Your task to perform on an android device: Empty the shopping cart on newegg. Search for "acer nitro" on newegg, select the first entry, and add it to the cart. Image 0: 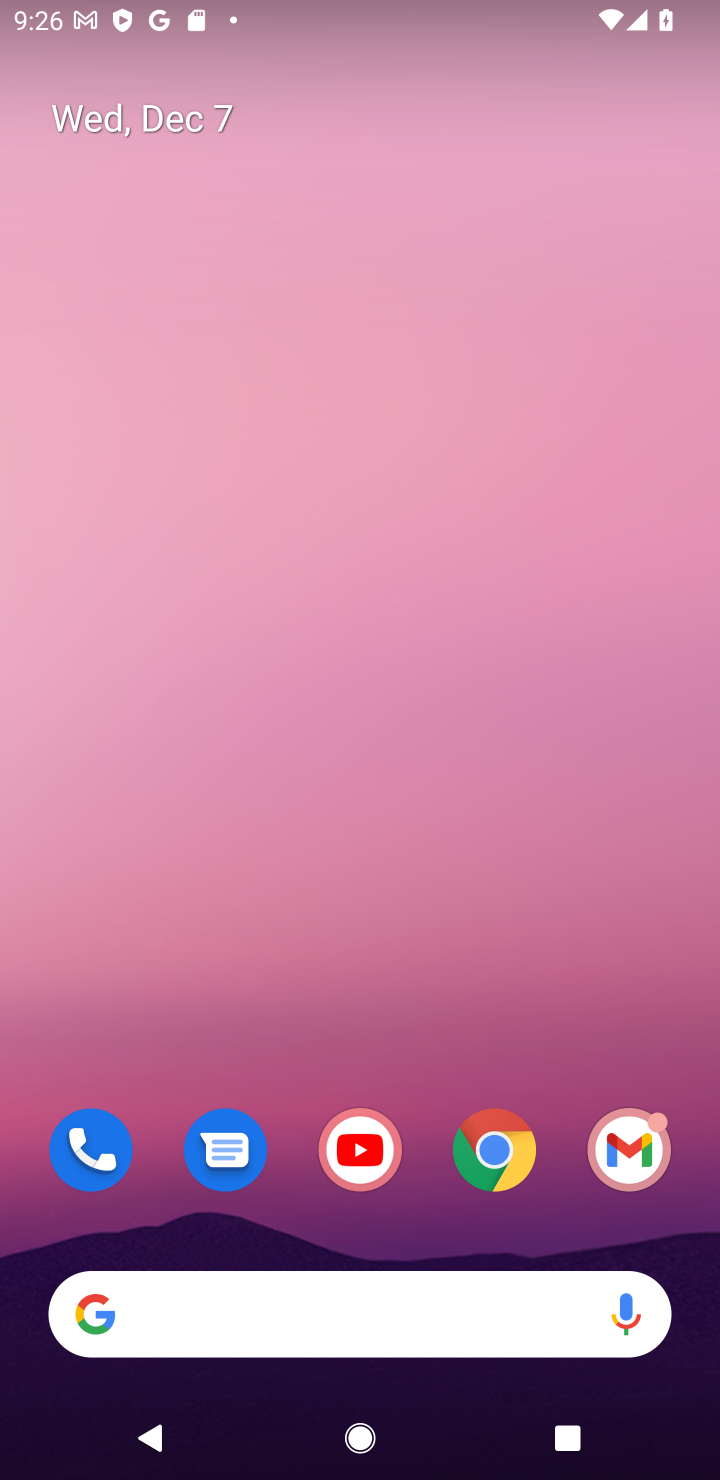
Step 0: click (494, 1149)
Your task to perform on an android device: Empty the shopping cart on newegg. Search for "acer nitro" on newegg, select the first entry, and add it to the cart. Image 1: 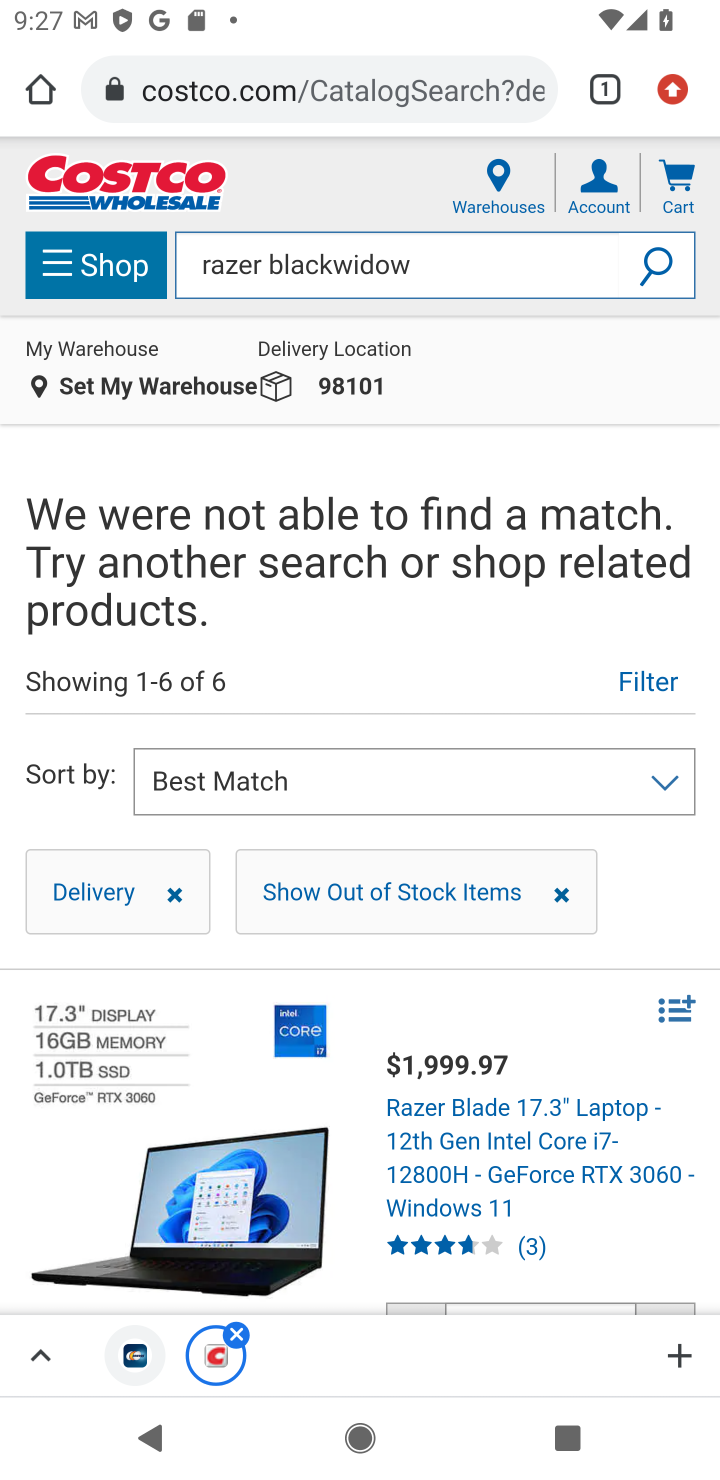
Step 1: click (338, 89)
Your task to perform on an android device: Empty the shopping cart on newegg. Search for "acer nitro" on newegg, select the first entry, and add it to the cart. Image 2: 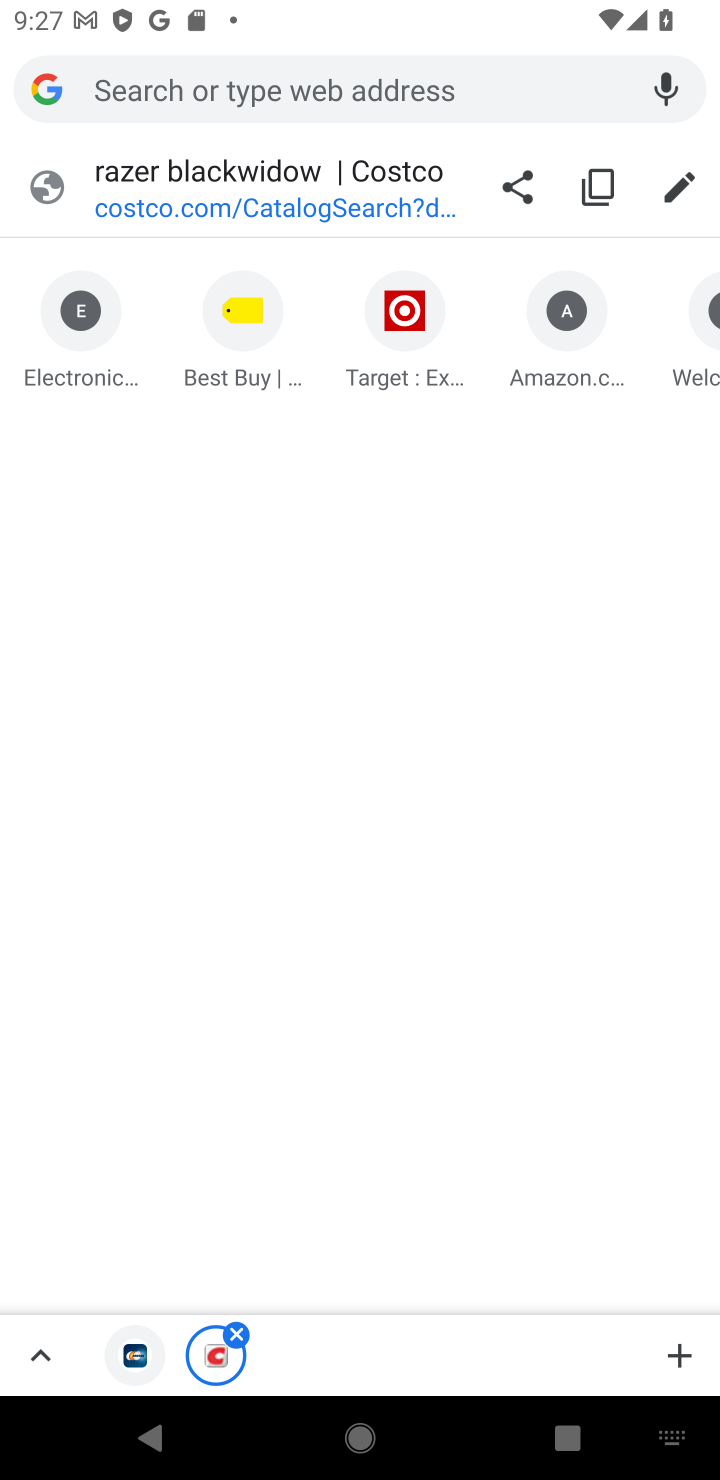
Step 2: press enter
Your task to perform on an android device: Empty the shopping cart on newegg. Search for "acer nitro" on newegg, select the first entry, and add it to the cart. Image 3: 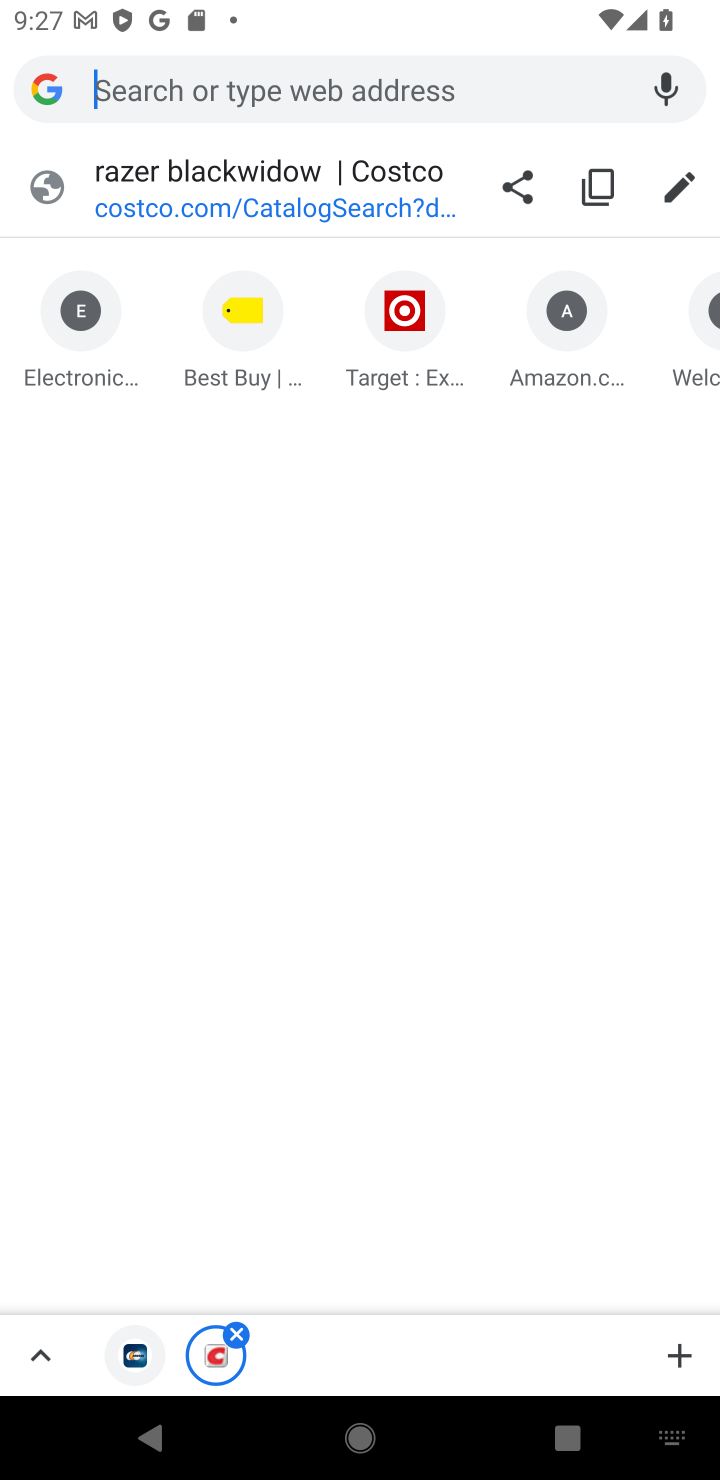
Step 3: type "newegg"
Your task to perform on an android device: Empty the shopping cart on newegg. Search for "acer nitro" on newegg, select the first entry, and add it to the cart. Image 4: 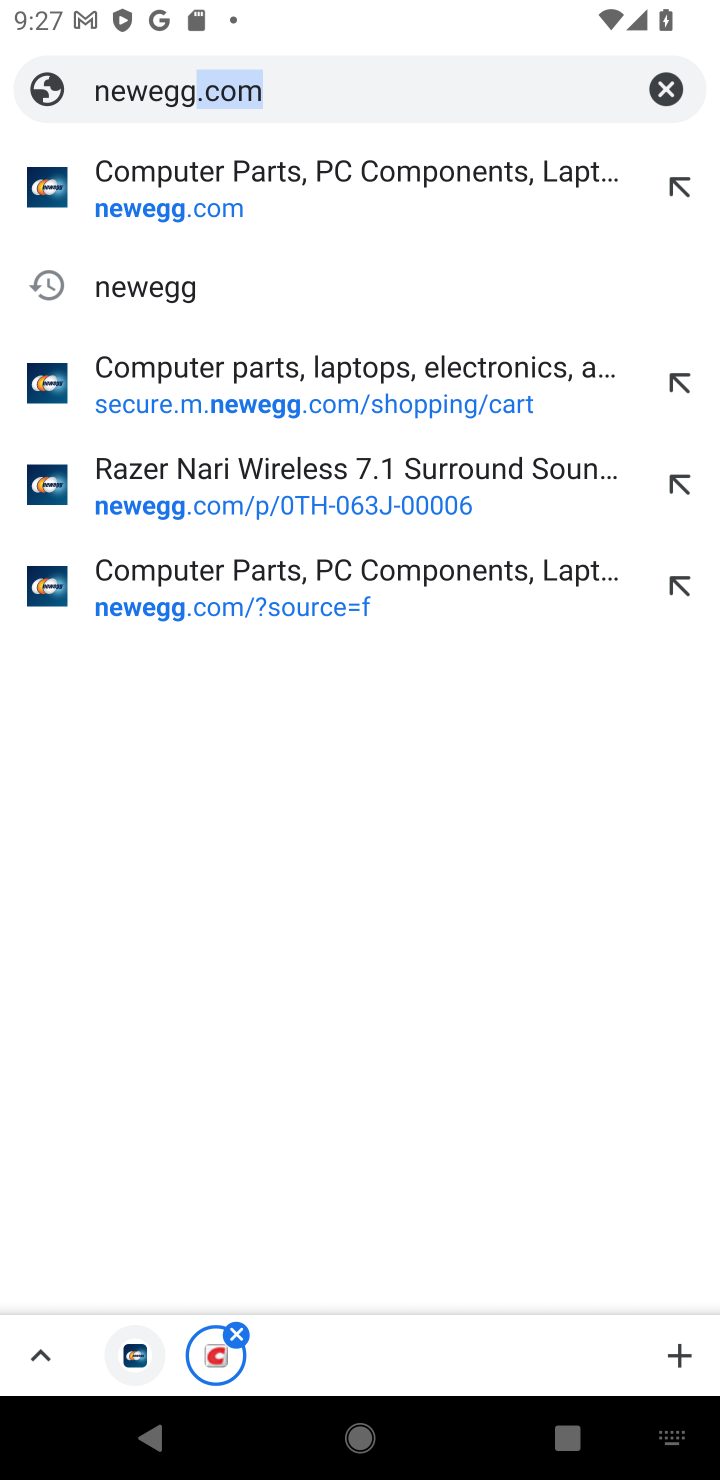
Step 4: click (412, 70)
Your task to perform on an android device: Empty the shopping cart on newegg. Search for "acer nitro" on newegg, select the first entry, and add it to the cart. Image 5: 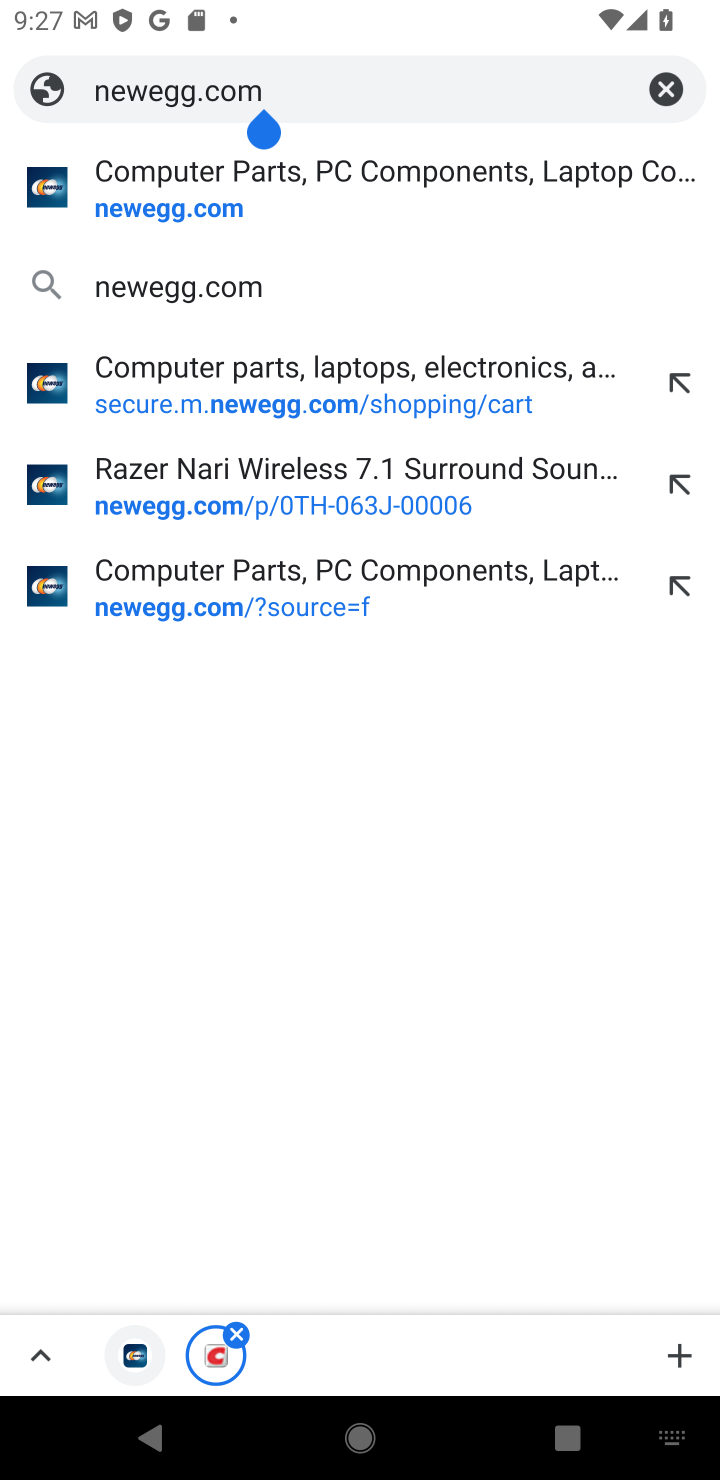
Step 5: click (214, 284)
Your task to perform on an android device: Empty the shopping cart on newegg. Search for "acer nitro" on newegg, select the first entry, and add it to the cart. Image 6: 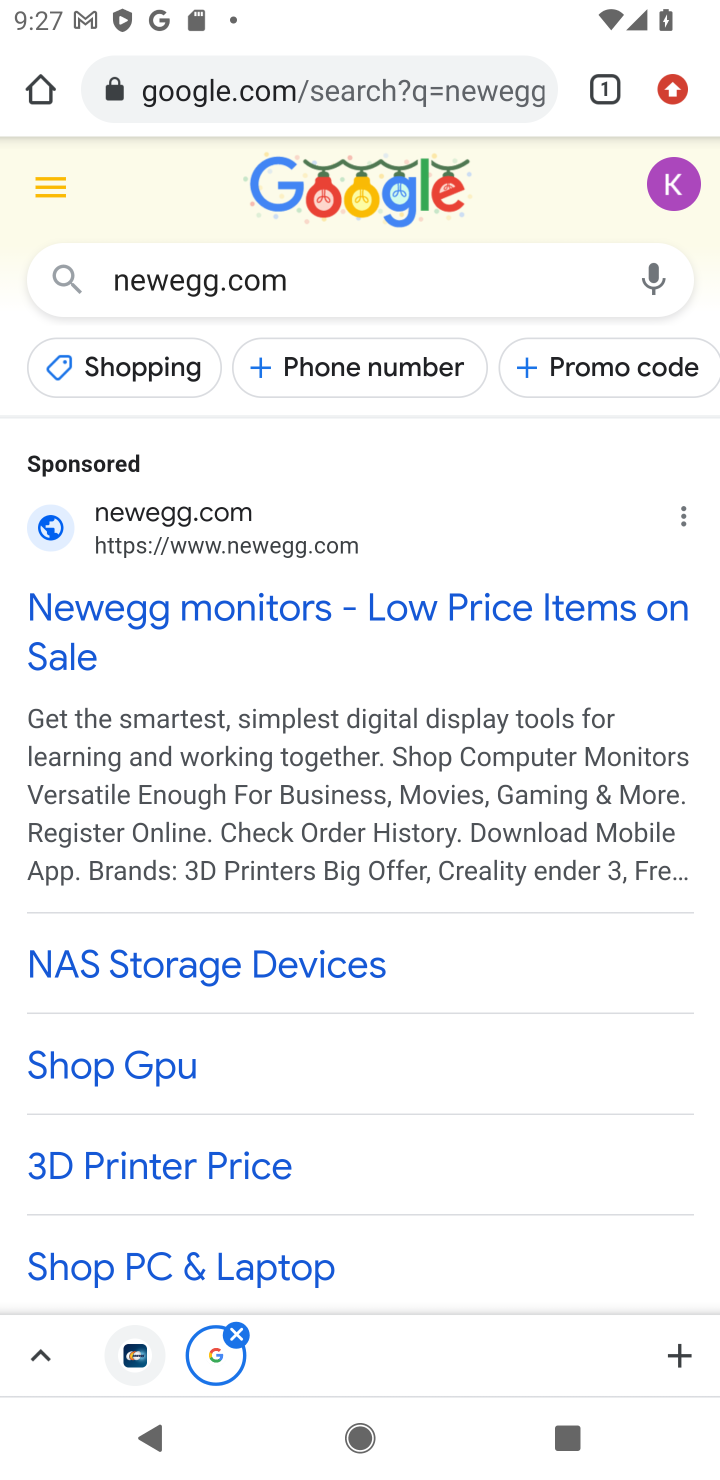
Step 6: click (258, 544)
Your task to perform on an android device: Empty the shopping cart on newegg. Search for "acer nitro" on newegg, select the first entry, and add it to the cart. Image 7: 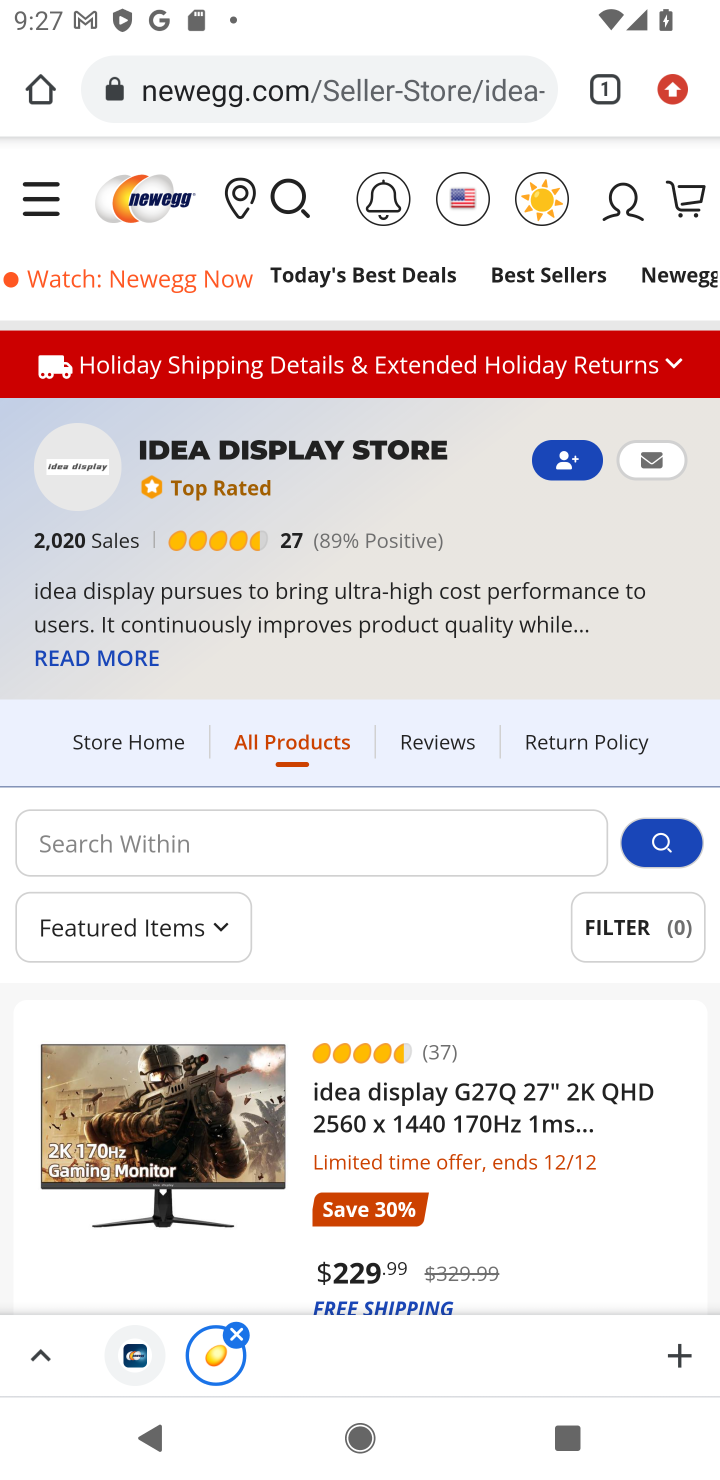
Step 7: click (294, 196)
Your task to perform on an android device: Empty the shopping cart on newegg. Search for "acer nitro" on newegg, select the first entry, and add it to the cart. Image 8: 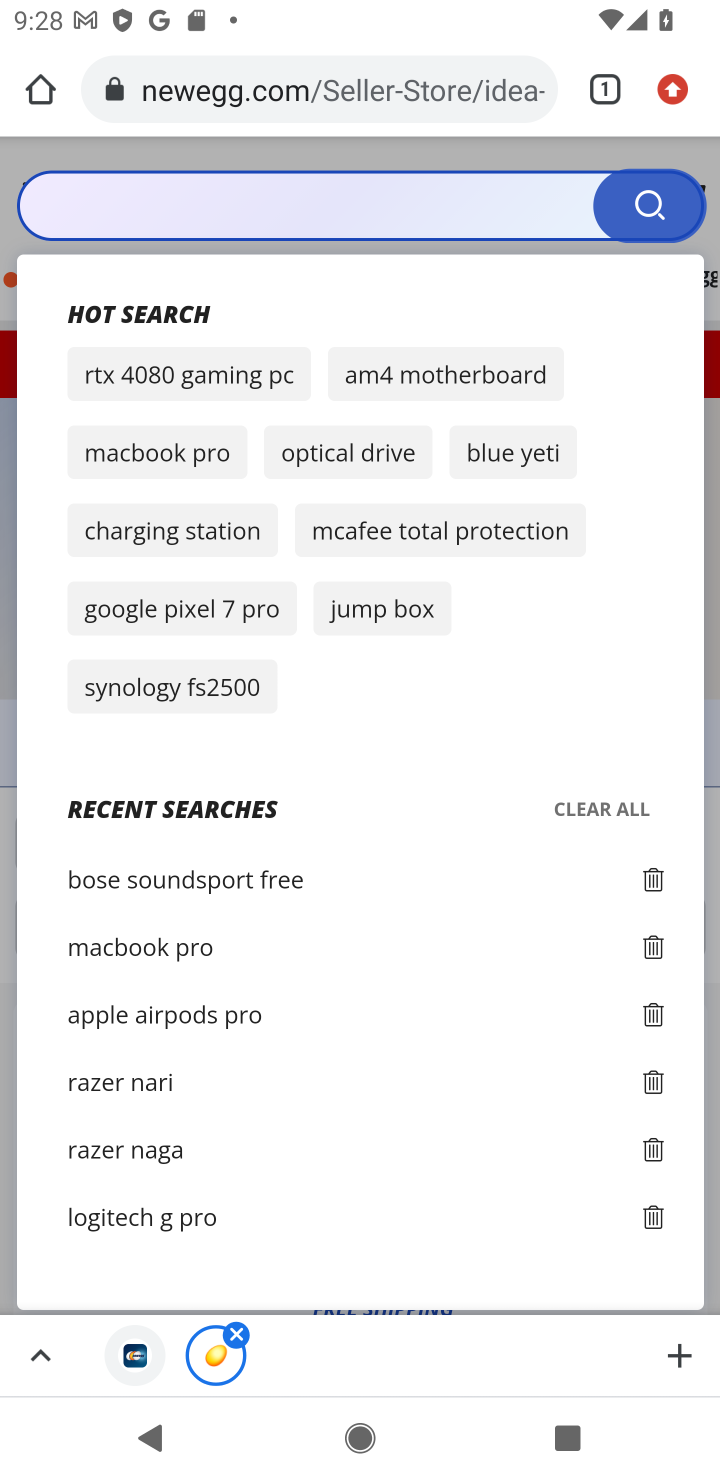
Step 8: press back button
Your task to perform on an android device: Empty the shopping cart on newegg. Search for "acer nitro" on newegg, select the first entry, and add it to the cart. Image 9: 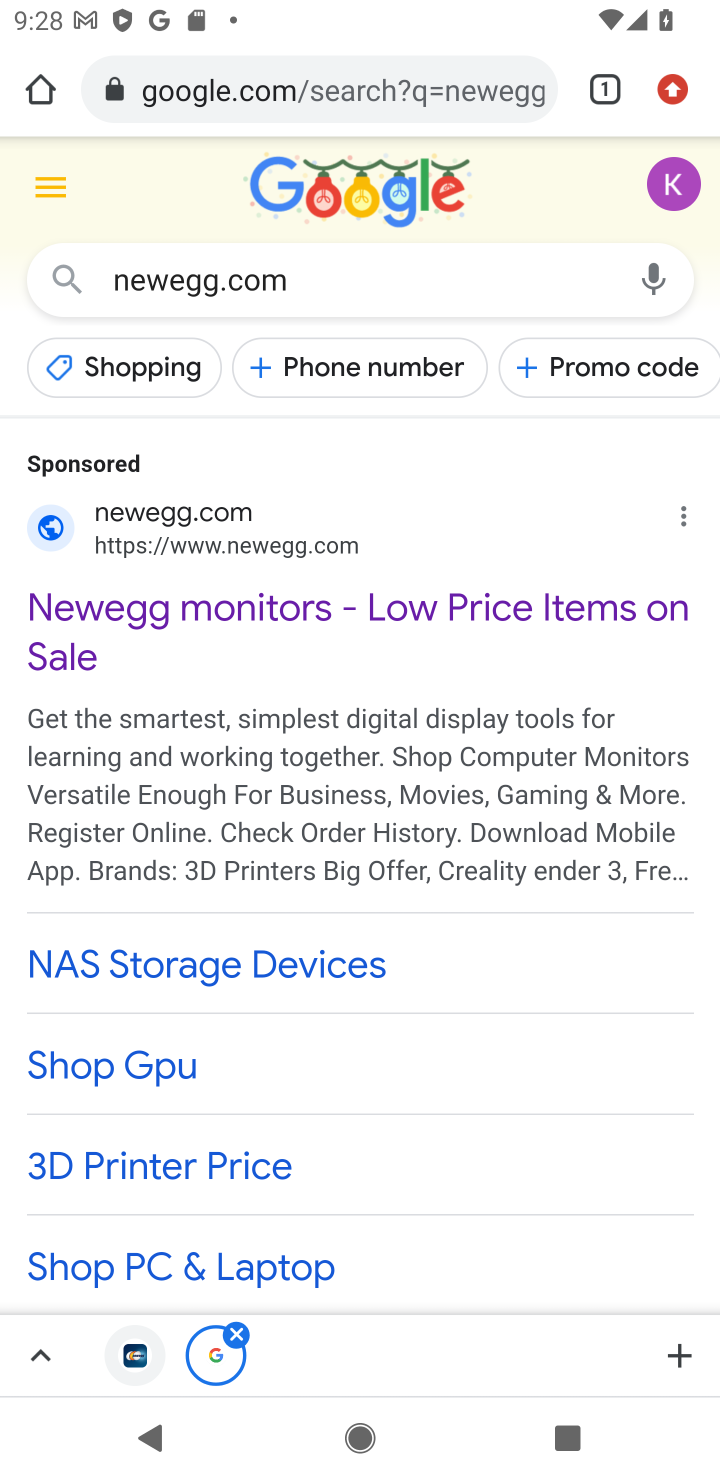
Step 9: drag from (447, 1006) to (405, 528)
Your task to perform on an android device: Empty the shopping cart on newegg. Search for "acer nitro" on newegg, select the first entry, and add it to the cart. Image 10: 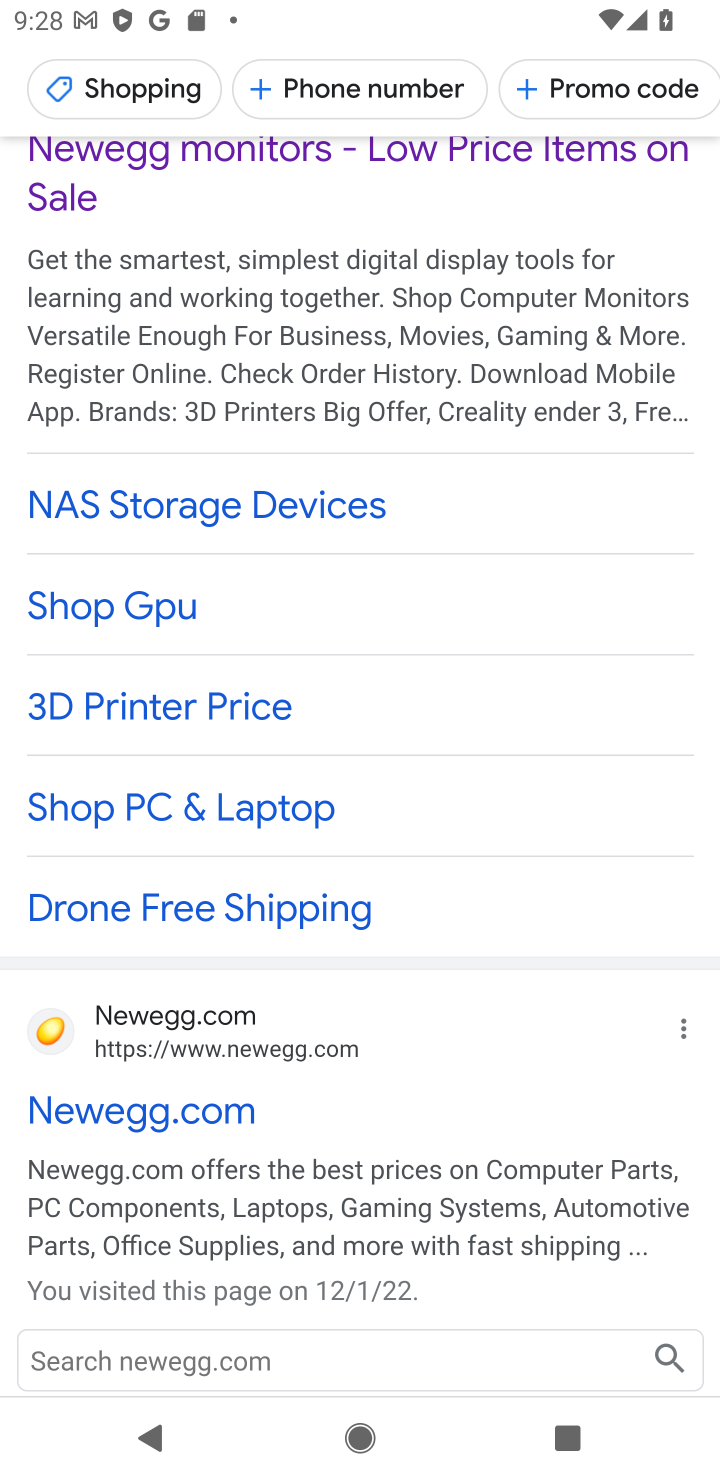
Step 10: click (240, 1041)
Your task to perform on an android device: Empty the shopping cart on newegg. Search for "acer nitro" on newegg, select the first entry, and add it to the cart. Image 11: 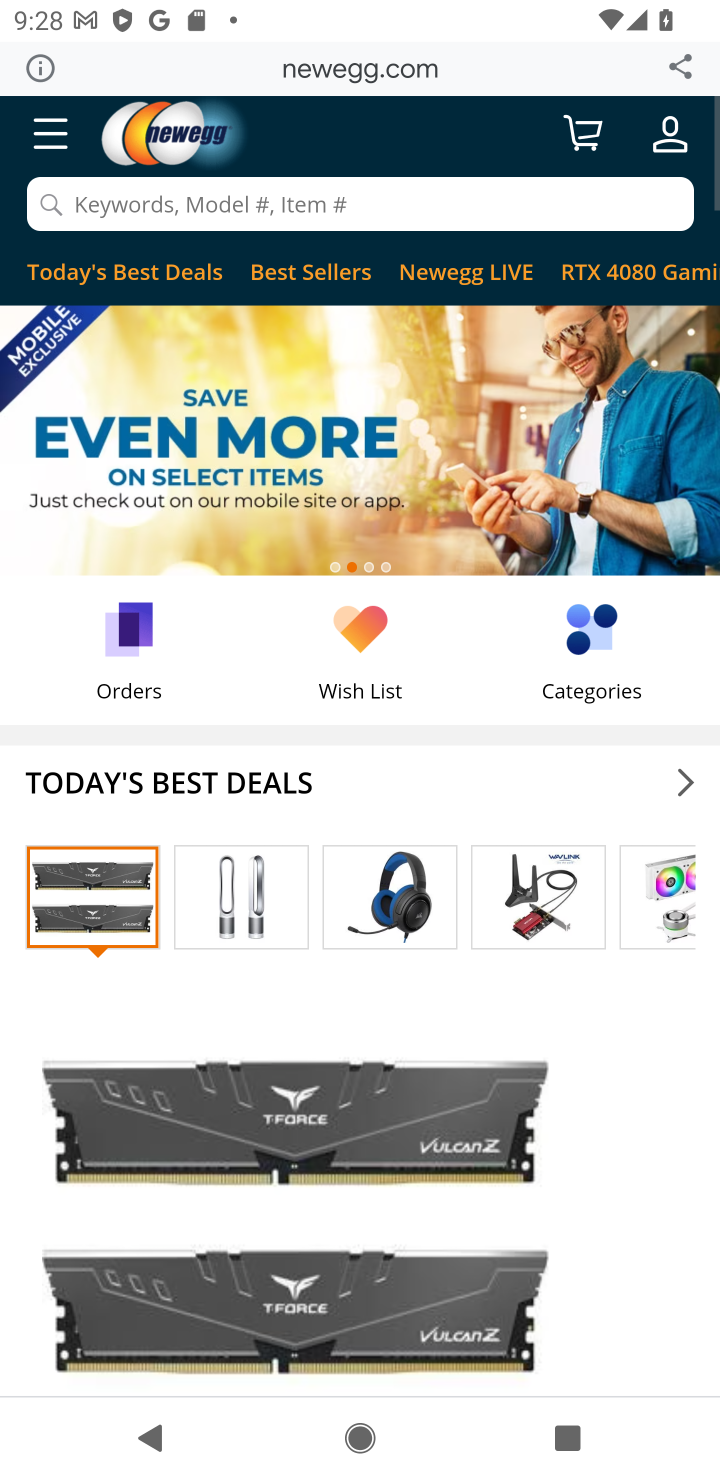
Step 11: click (585, 132)
Your task to perform on an android device: Empty the shopping cart on newegg. Search for "acer nitro" on newegg, select the first entry, and add it to the cart. Image 12: 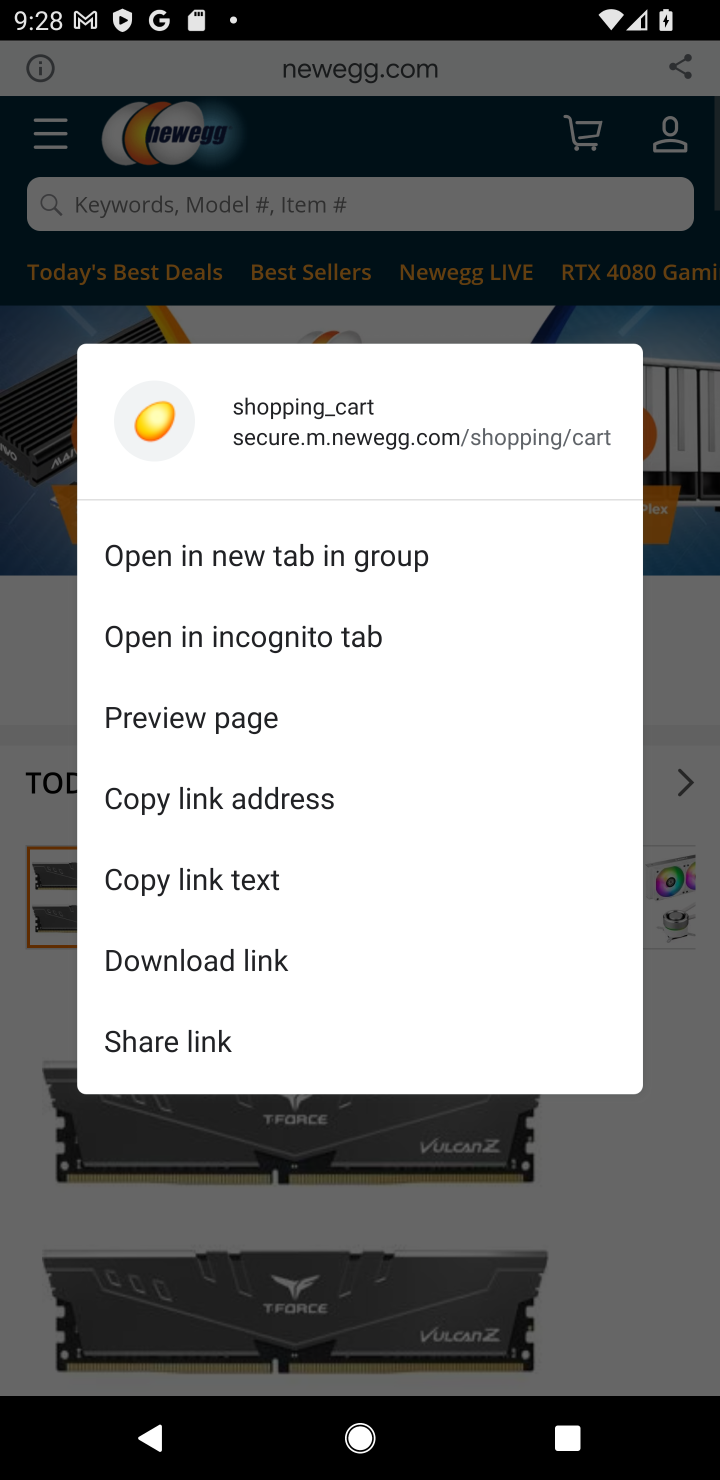
Step 12: click (531, 214)
Your task to perform on an android device: Empty the shopping cart on newegg. Search for "acer nitro" on newegg, select the first entry, and add it to the cart. Image 13: 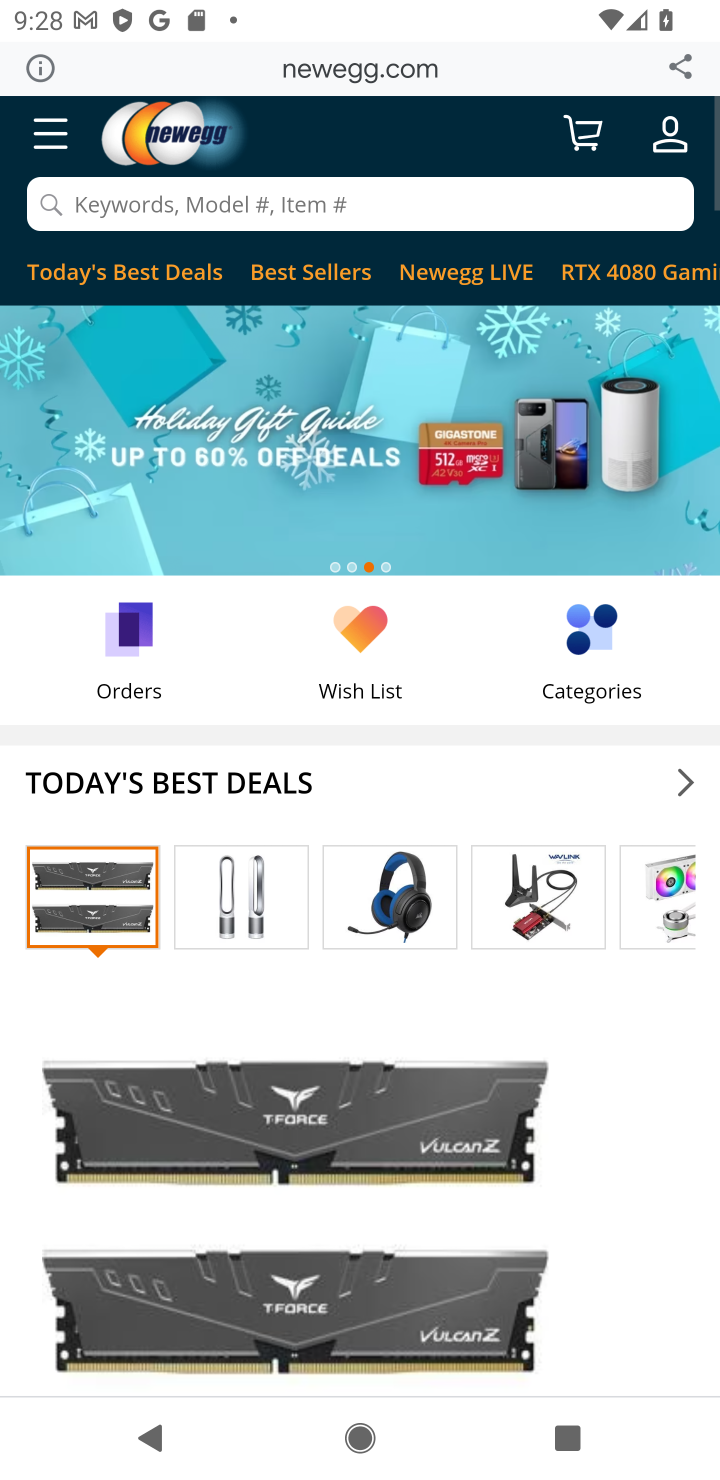
Step 13: click (543, 193)
Your task to perform on an android device: Empty the shopping cart on newegg. Search for "acer nitro" on newegg, select the first entry, and add it to the cart. Image 14: 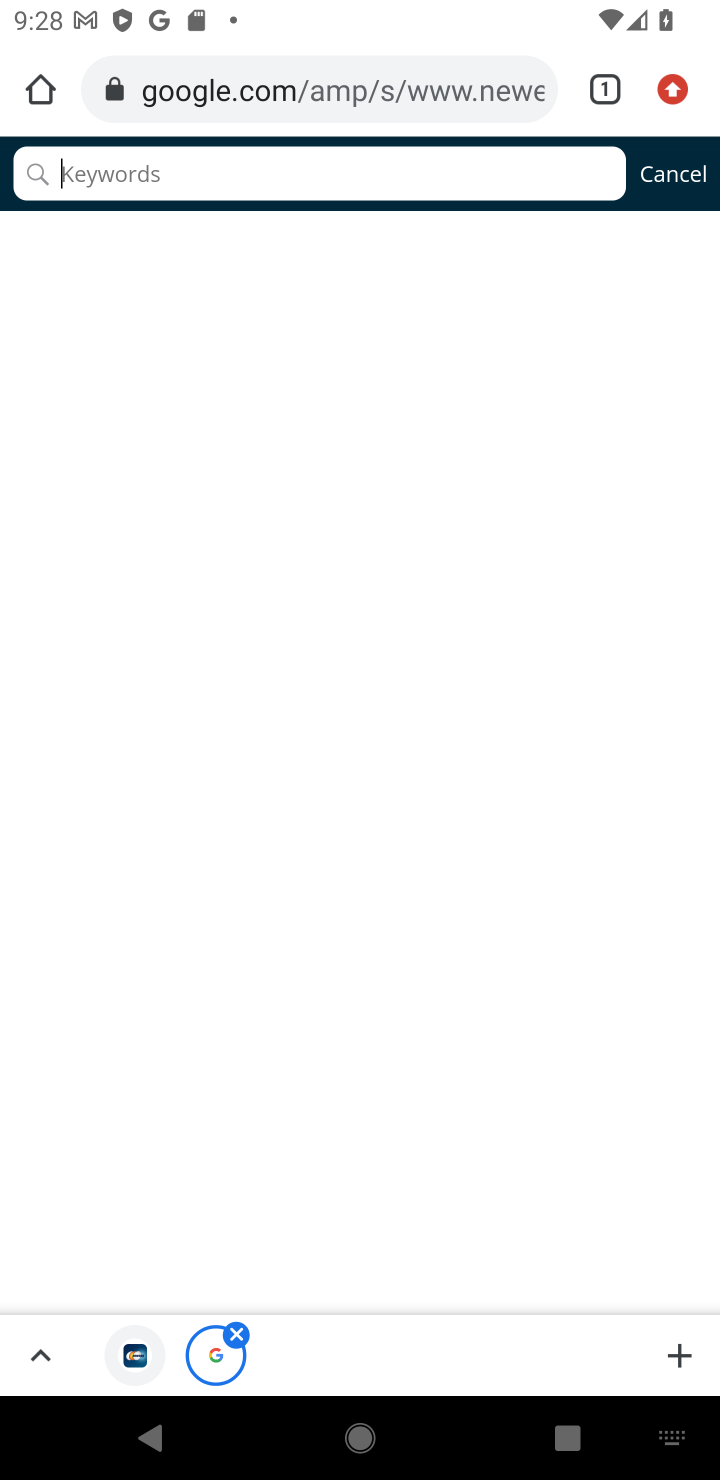
Step 14: press enter
Your task to perform on an android device: Empty the shopping cart on newegg. Search for "acer nitro" on newegg, select the first entry, and add it to the cart. Image 15: 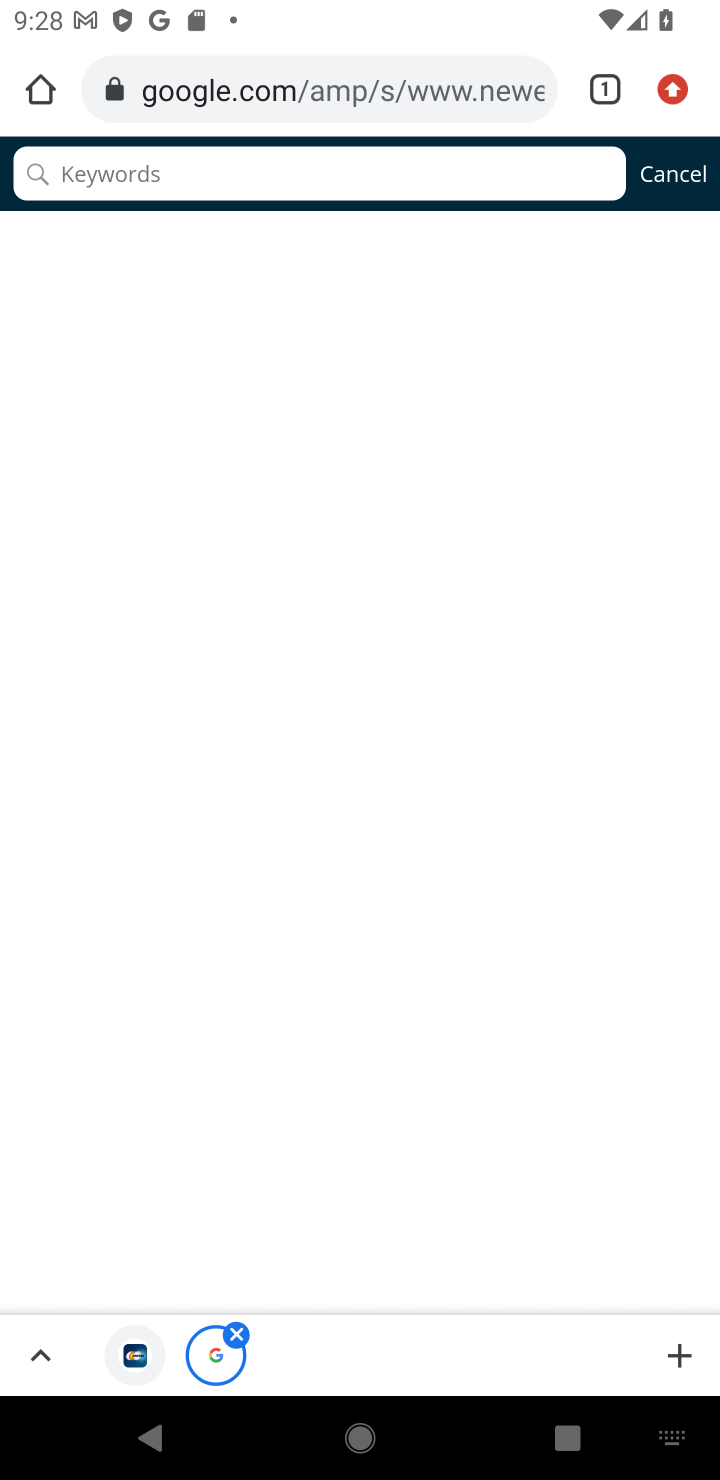
Step 15: type "acer nitro"
Your task to perform on an android device: Empty the shopping cart on newegg. Search for "acer nitro" on newegg, select the first entry, and add it to the cart. Image 16: 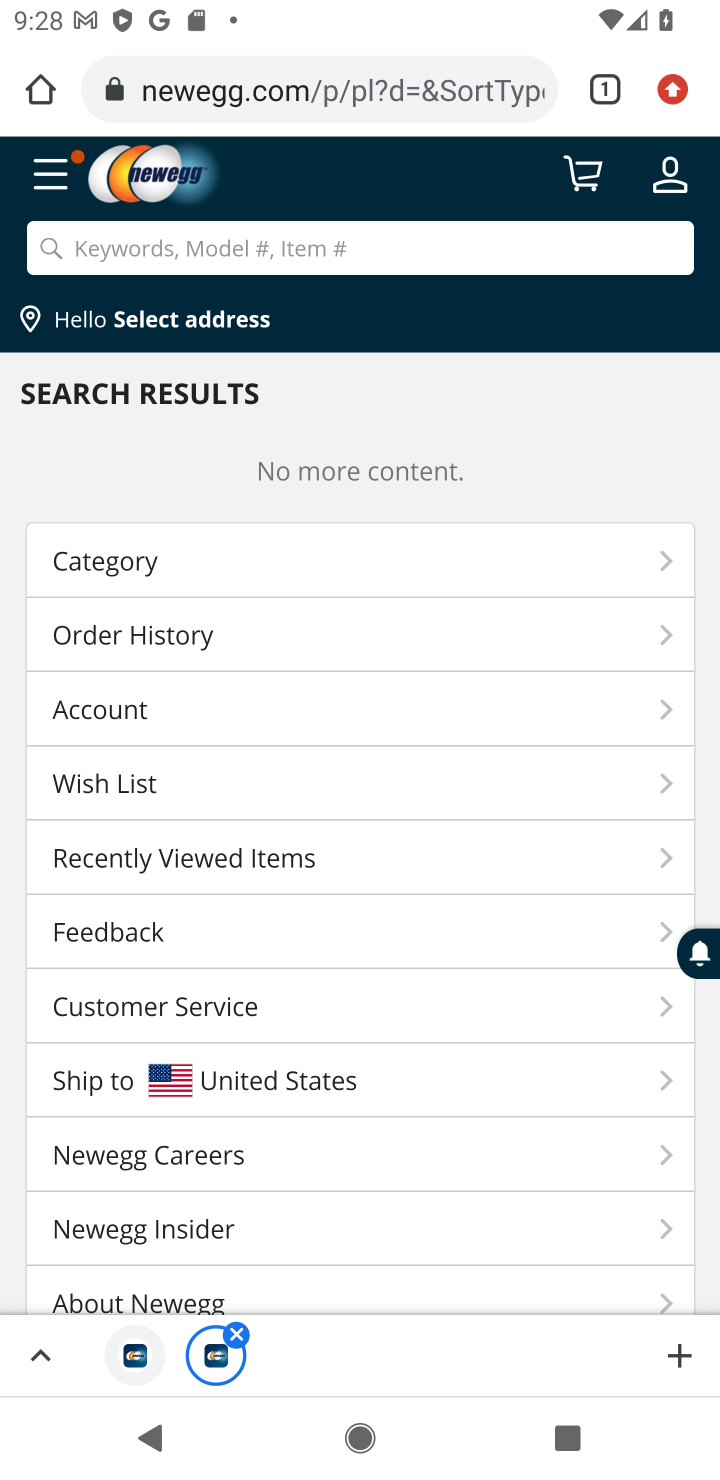
Step 16: click (581, 239)
Your task to perform on an android device: Empty the shopping cart on newegg. Search for "acer nitro" on newegg, select the first entry, and add it to the cart. Image 17: 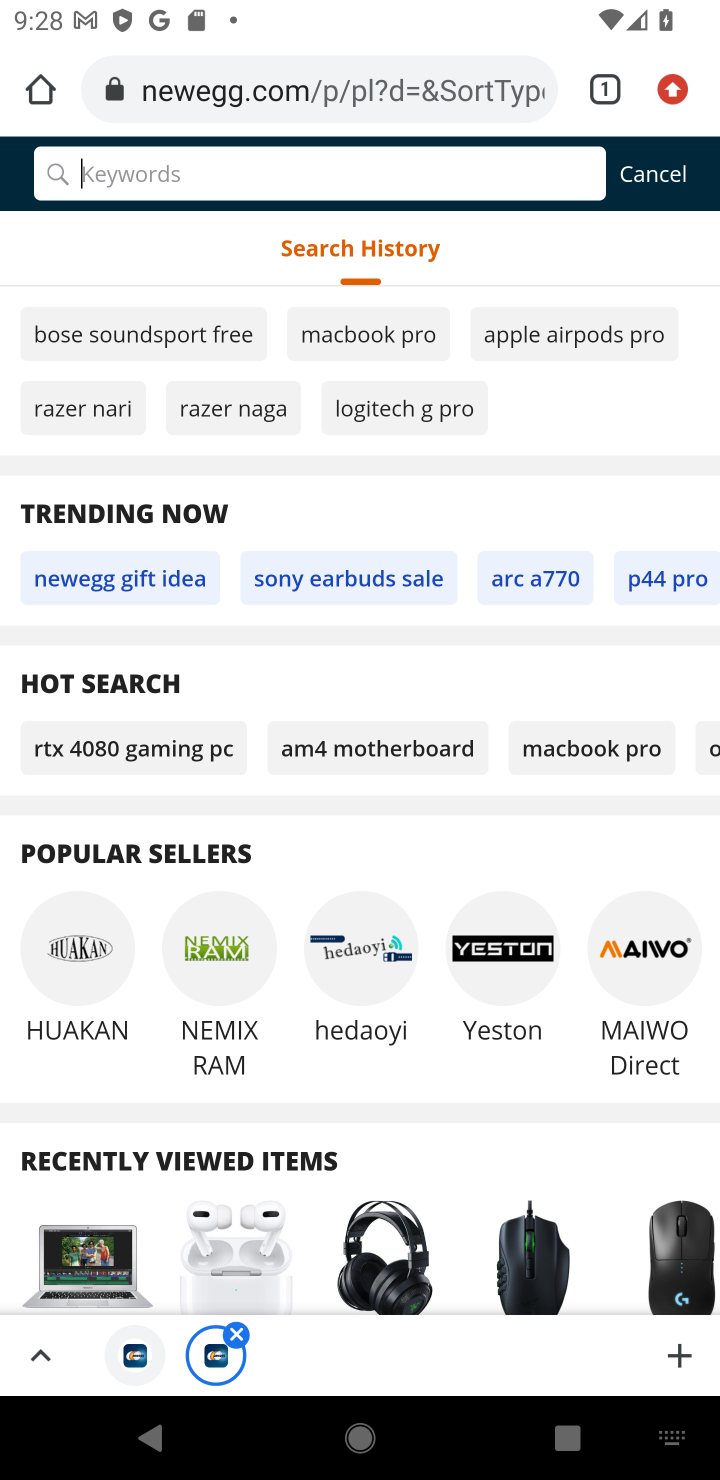
Step 17: press enter
Your task to perform on an android device: Empty the shopping cart on newegg. Search for "acer nitro" on newegg, select the first entry, and add it to the cart. Image 18: 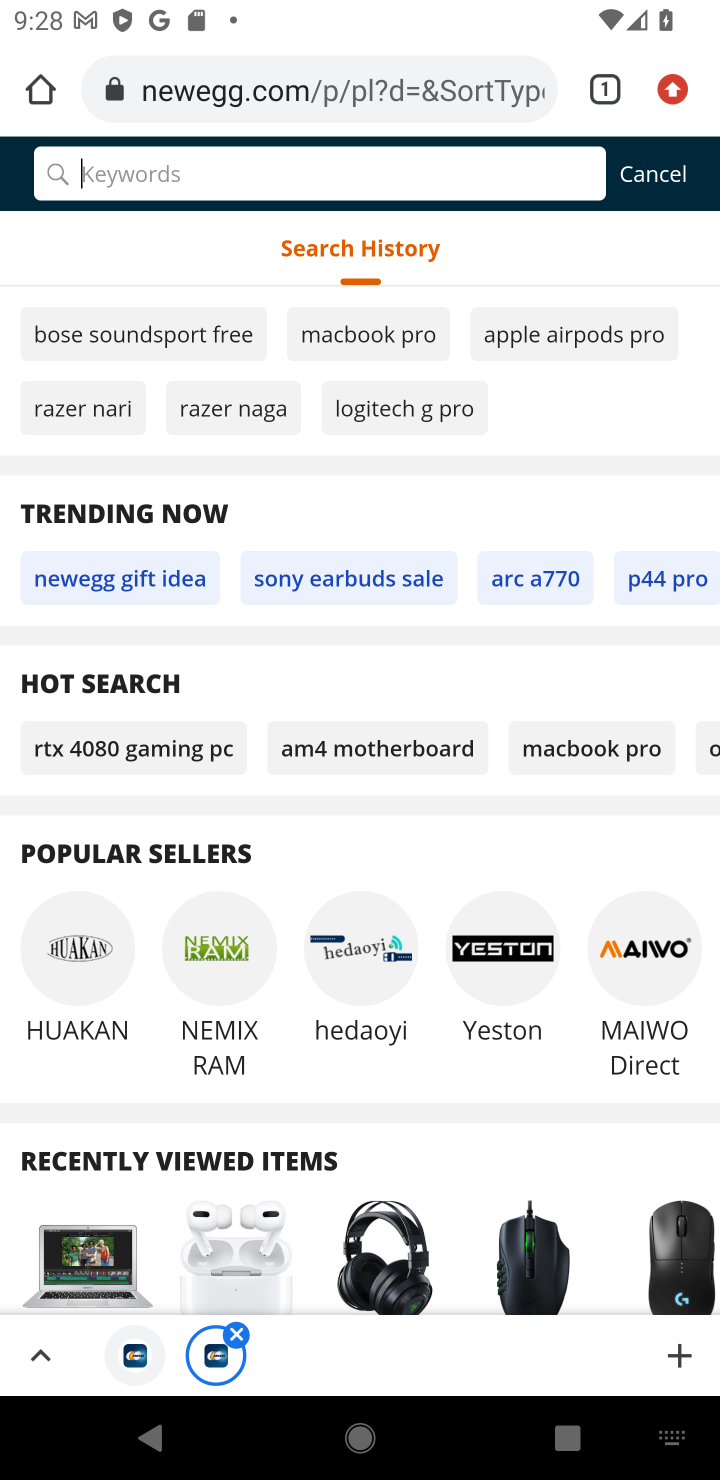
Step 18: type "acer nitro"
Your task to perform on an android device: Empty the shopping cart on newegg. Search for "acer nitro" on newegg, select the first entry, and add it to the cart. Image 19: 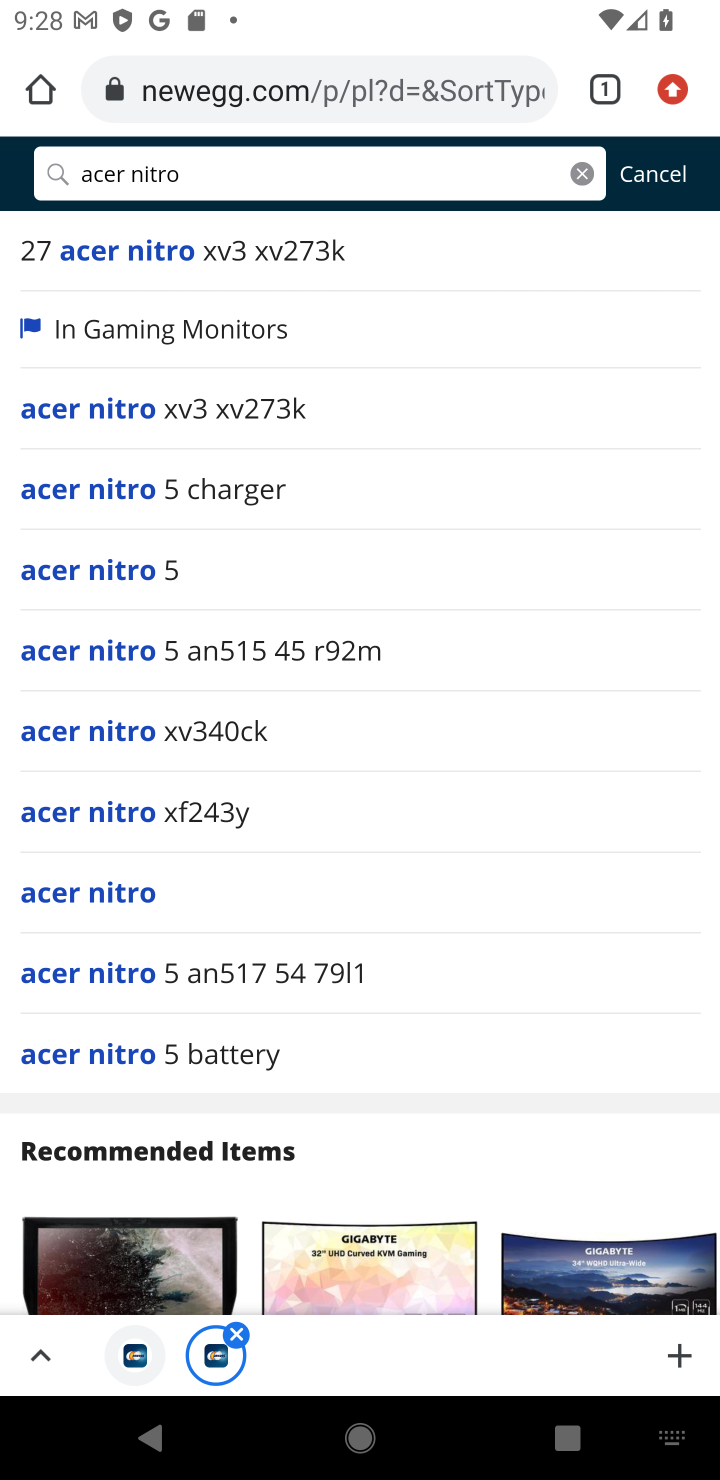
Step 19: click (143, 892)
Your task to perform on an android device: Empty the shopping cart on newegg. Search for "acer nitro" on newegg, select the first entry, and add it to the cart. Image 20: 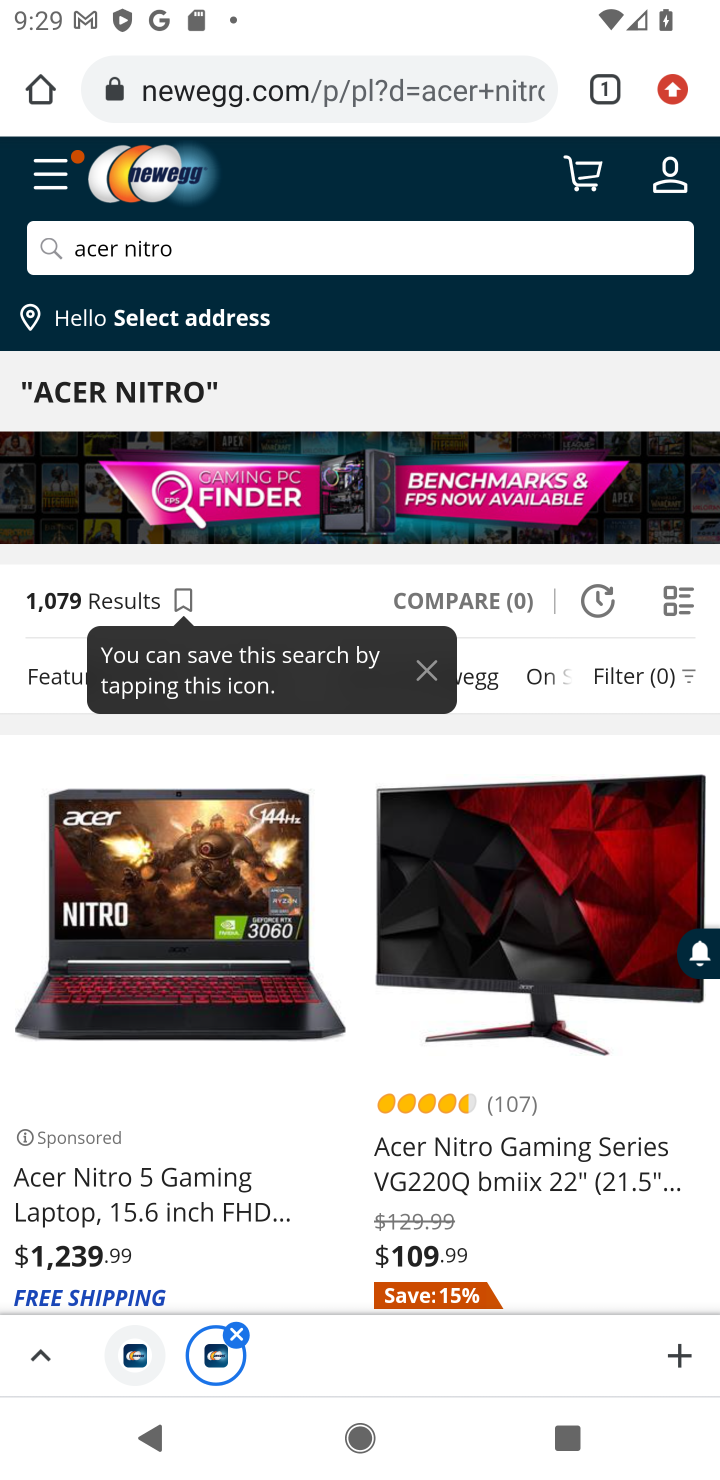
Step 20: click (493, 897)
Your task to perform on an android device: Empty the shopping cart on newegg. Search for "acer nitro" on newegg, select the first entry, and add it to the cart. Image 21: 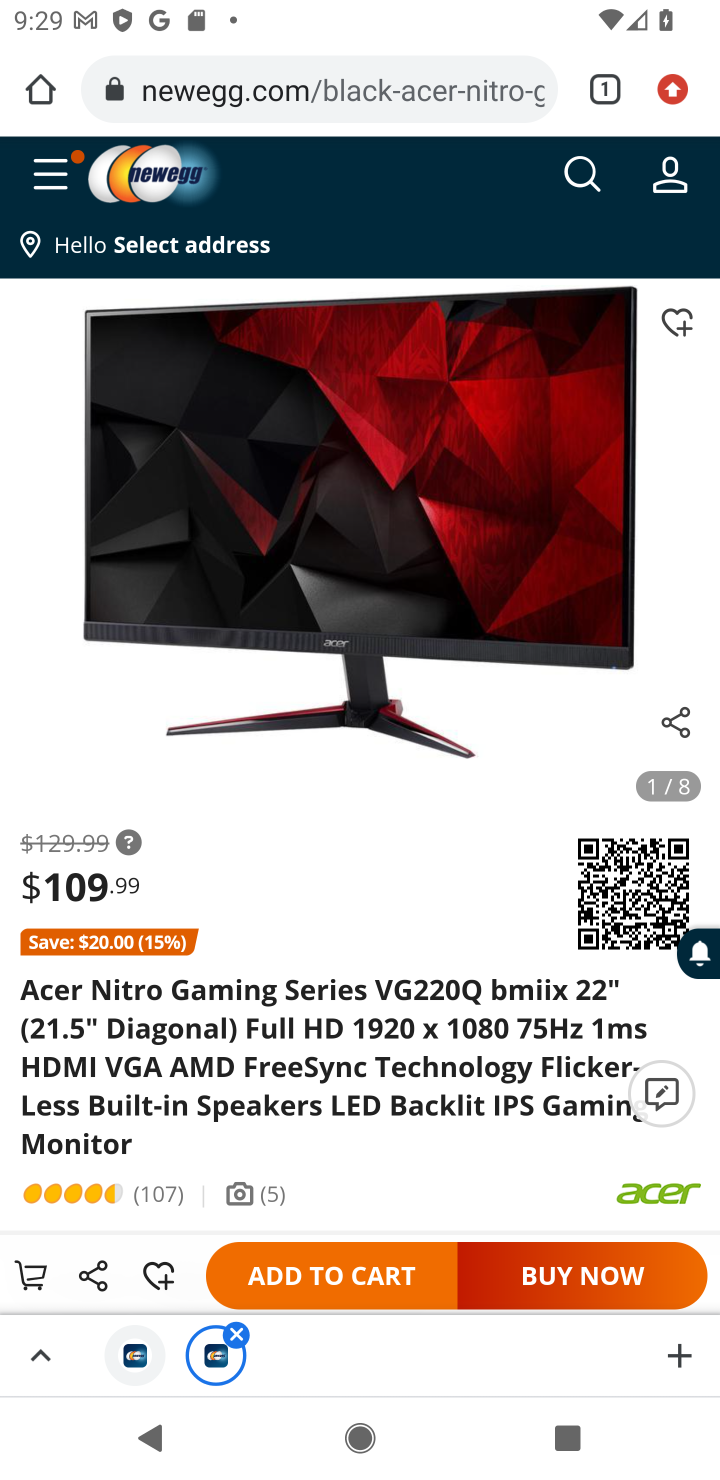
Step 21: press back button
Your task to perform on an android device: Empty the shopping cart on newegg. Search for "acer nitro" on newegg, select the first entry, and add it to the cart. Image 22: 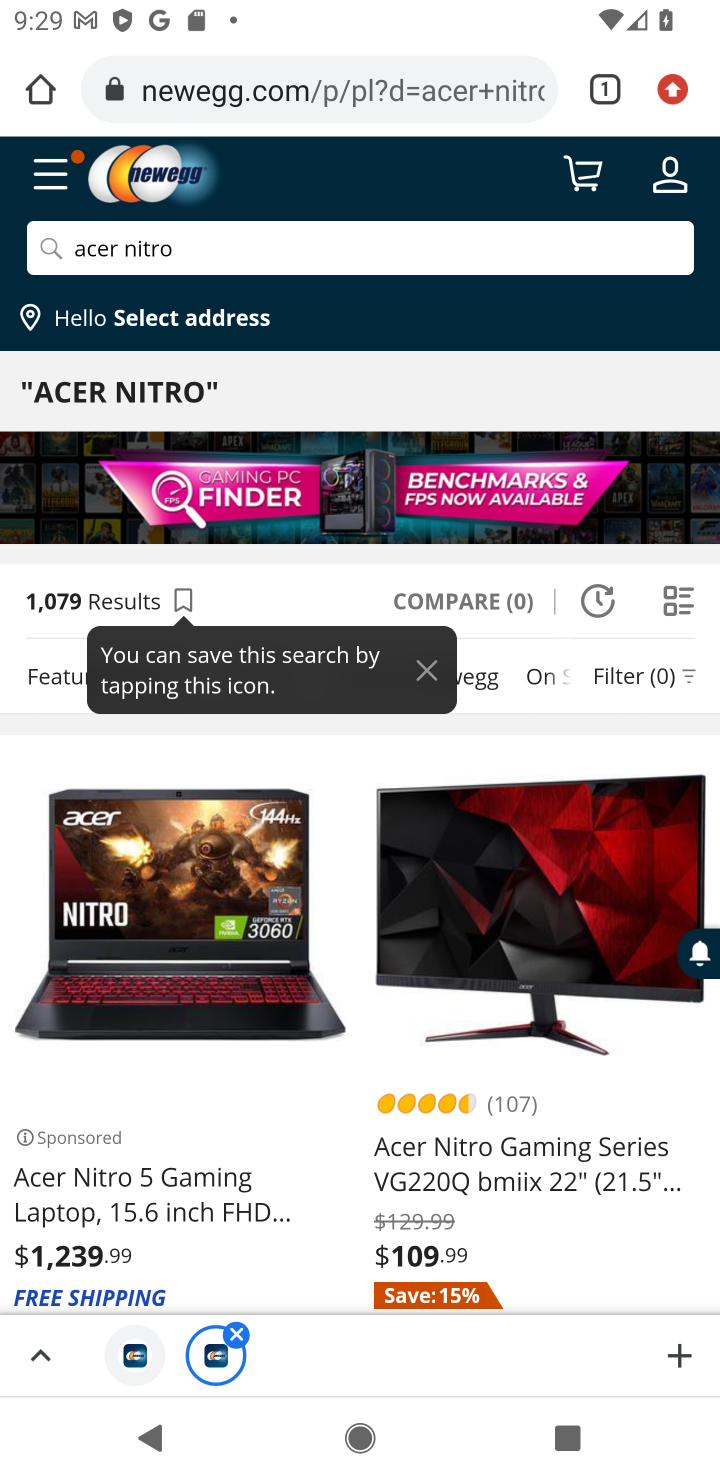
Step 22: click (155, 844)
Your task to perform on an android device: Empty the shopping cart on newegg. Search for "acer nitro" on newegg, select the first entry, and add it to the cart. Image 23: 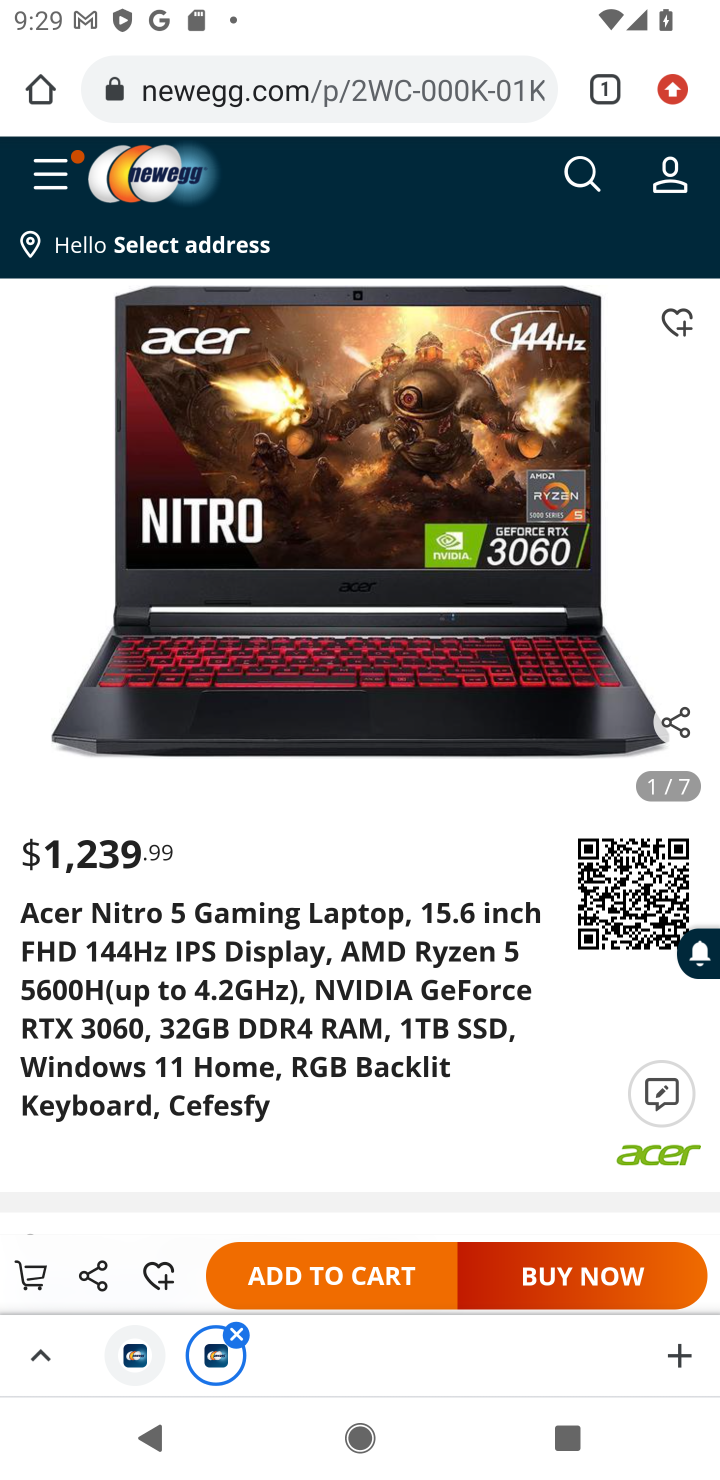
Step 23: drag from (466, 1089) to (484, 520)
Your task to perform on an android device: Empty the shopping cart on newegg. Search for "acer nitro" on newegg, select the first entry, and add it to the cart. Image 24: 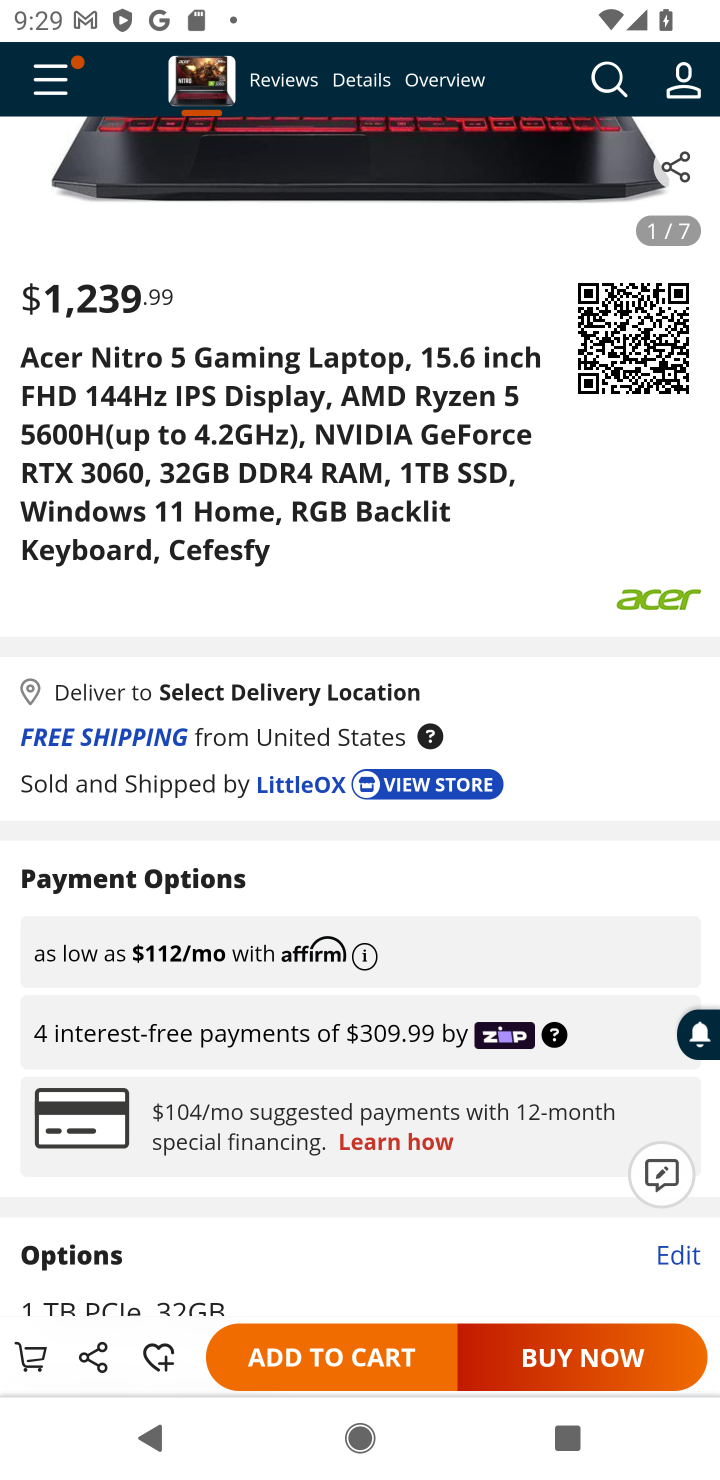
Step 24: click (343, 1346)
Your task to perform on an android device: Empty the shopping cart on newegg. Search for "acer nitro" on newegg, select the first entry, and add it to the cart. Image 25: 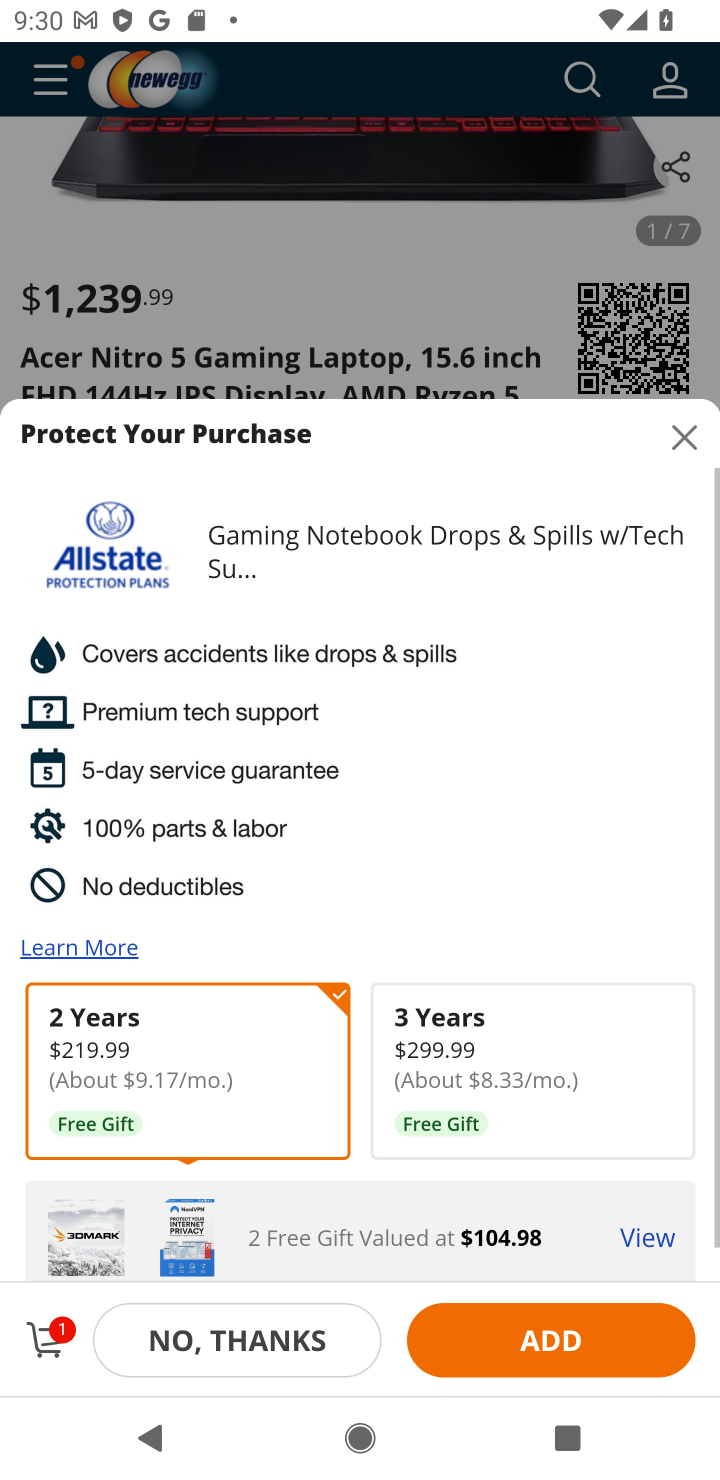
Step 25: click (37, 1340)
Your task to perform on an android device: Empty the shopping cart on newegg. Search for "acer nitro" on newegg, select the first entry, and add it to the cart. Image 26: 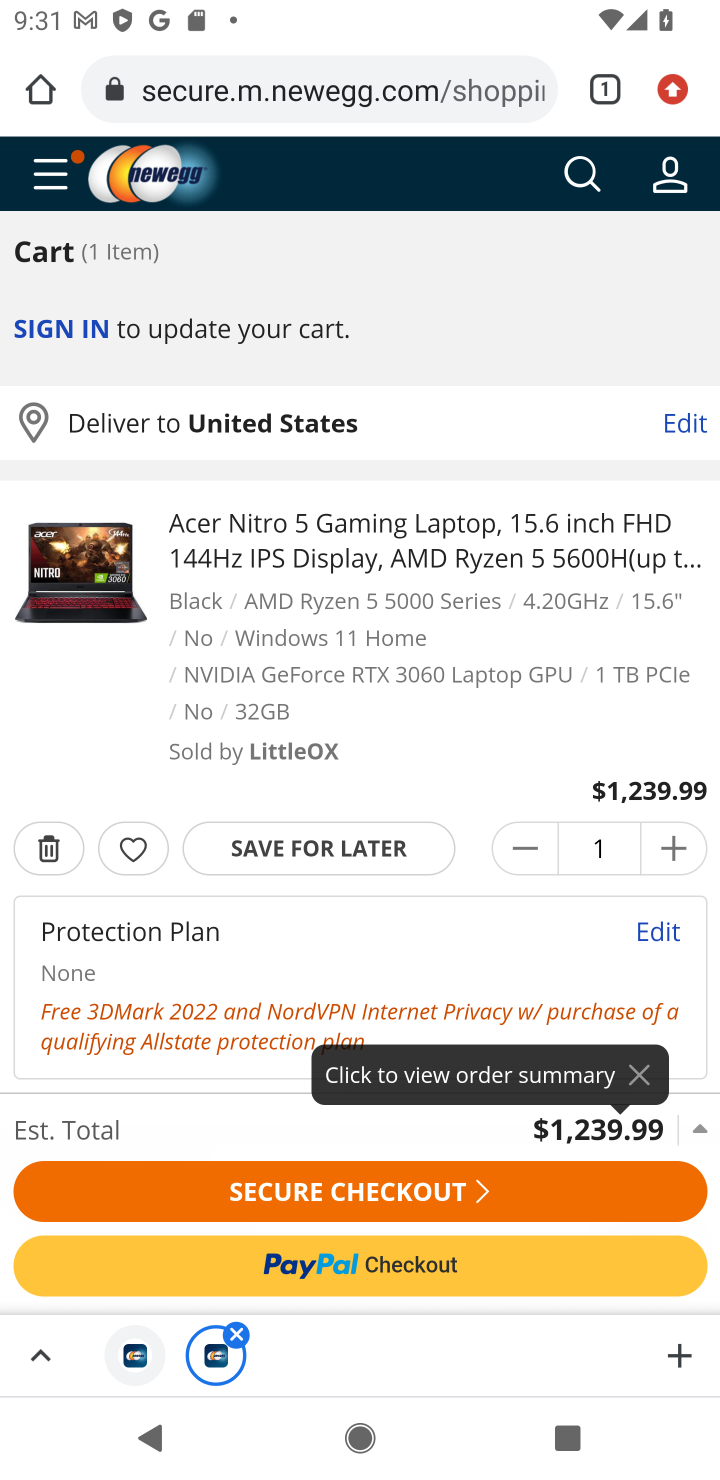
Step 26: task complete